Your task to perform on an android device: Open settings on Google Maps Image 0: 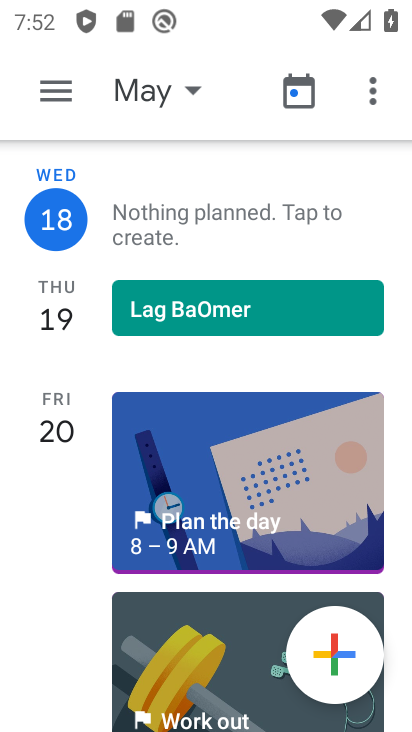
Step 0: press home button
Your task to perform on an android device: Open settings on Google Maps Image 1: 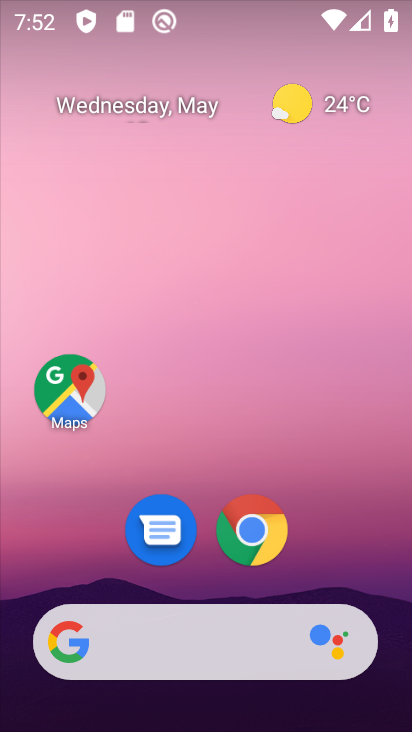
Step 1: drag from (357, 508) to (333, 218)
Your task to perform on an android device: Open settings on Google Maps Image 2: 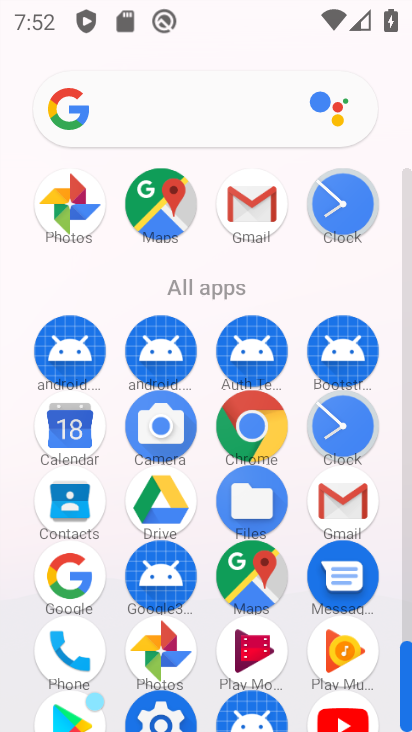
Step 2: click (246, 575)
Your task to perform on an android device: Open settings on Google Maps Image 3: 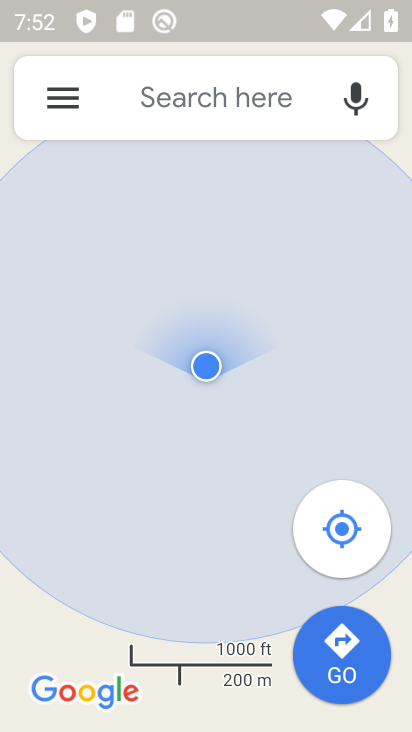
Step 3: click (56, 110)
Your task to perform on an android device: Open settings on Google Maps Image 4: 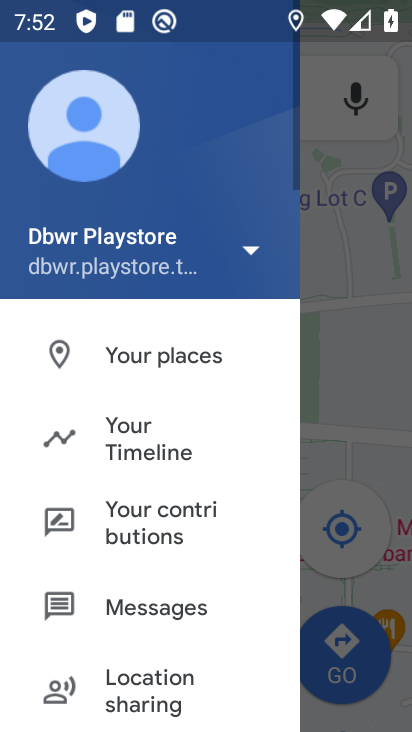
Step 4: click (143, 441)
Your task to perform on an android device: Open settings on Google Maps Image 5: 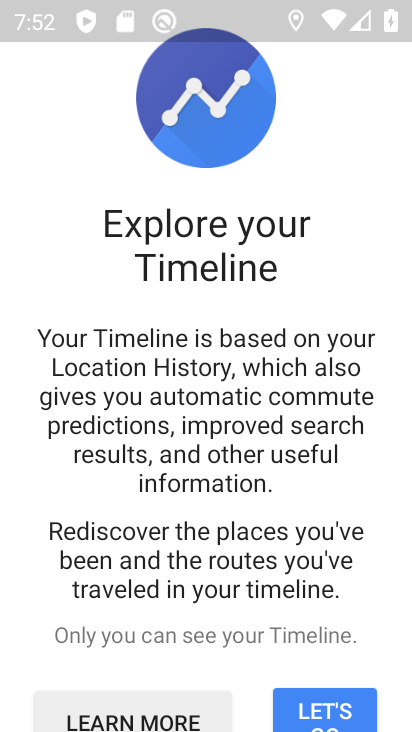
Step 5: drag from (182, 668) to (235, 323)
Your task to perform on an android device: Open settings on Google Maps Image 6: 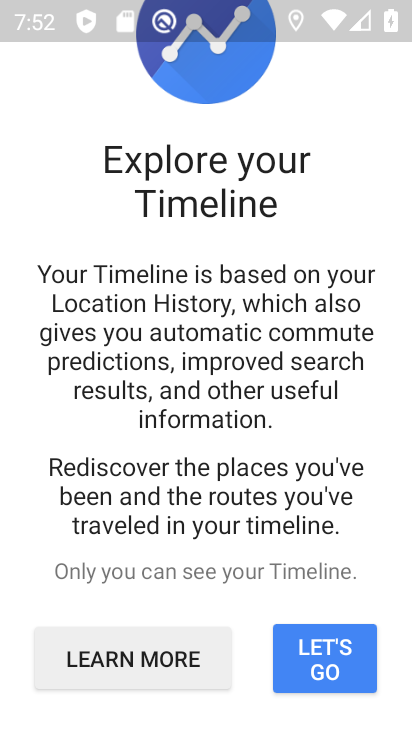
Step 6: click (296, 676)
Your task to perform on an android device: Open settings on Google Maps Image 7: 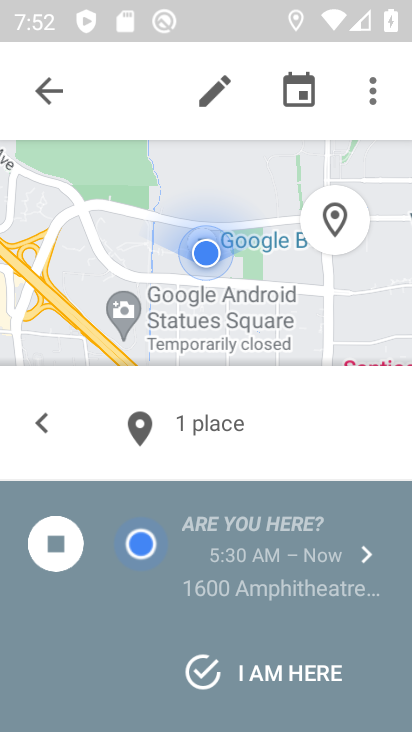
Step 7: click (372, 97)
Your task to perform on an android device: Open settings on Google Maps Image 8: 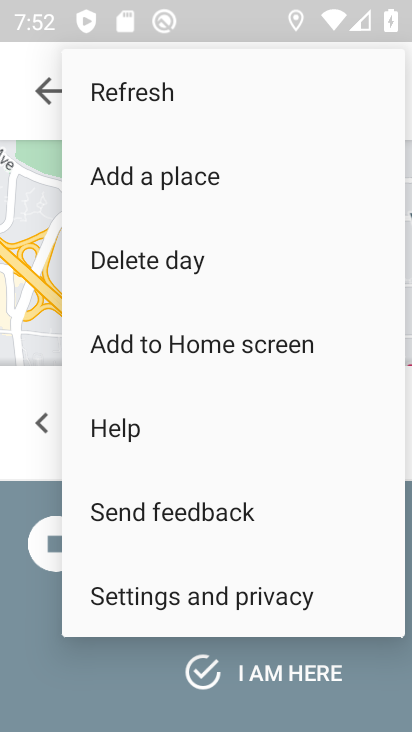
Step 8: click (265, 612)
Your task to perform on an android device: Open settings on Google Maps Image 9: 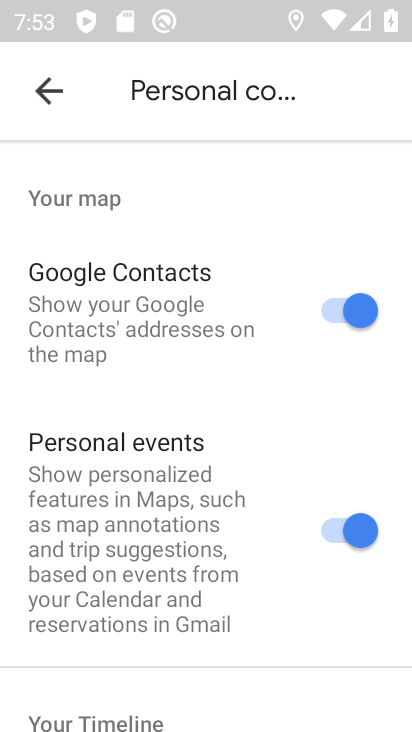
Step 9: task complete